Your task to perform on an android device: Empty the shopping cart on walmart. Add acer nitro to the cart on walmart, then select checkout. Image 0: 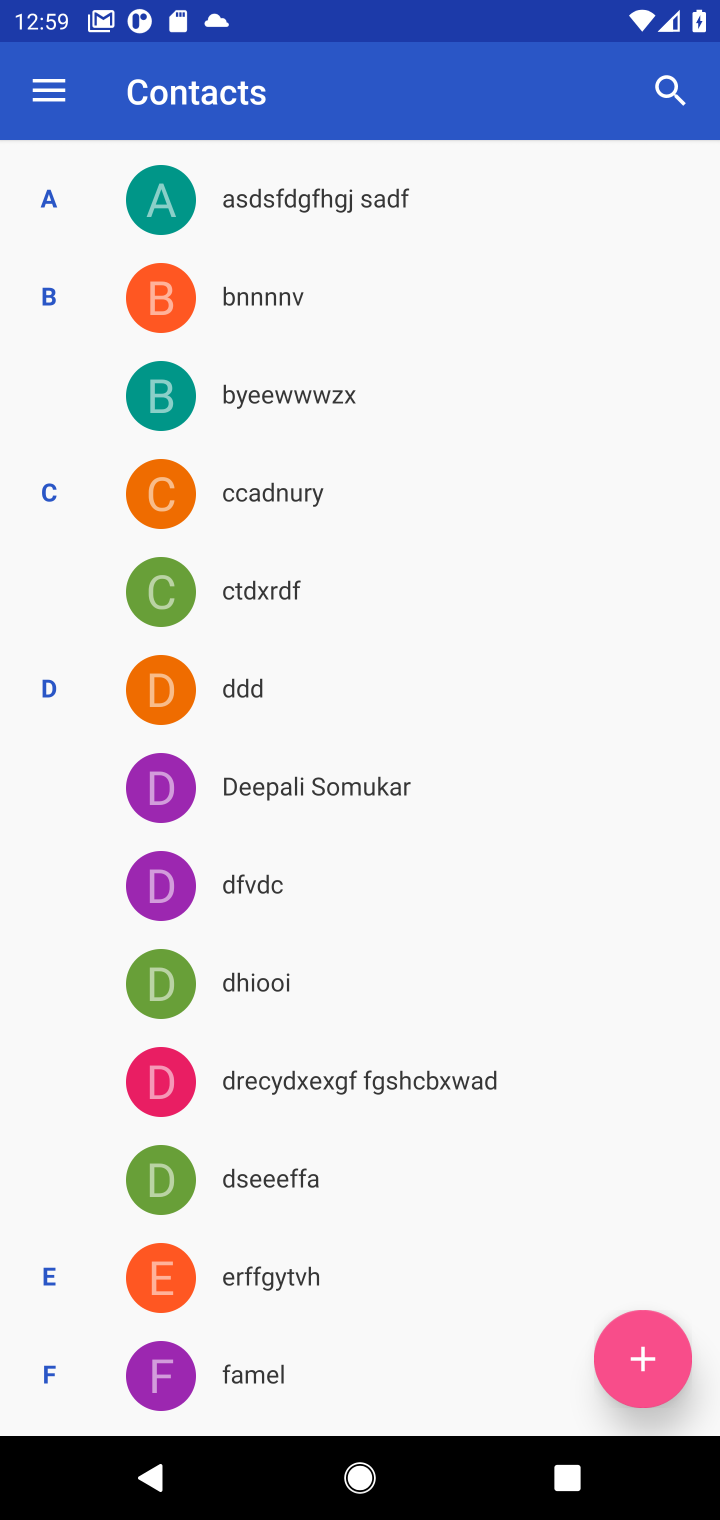
Step 0: press home button
Your task to perform on an android device: Empty the shopping cart on walmart. Add acer nitro to the cart on walmart, then select checkout. Image 1: 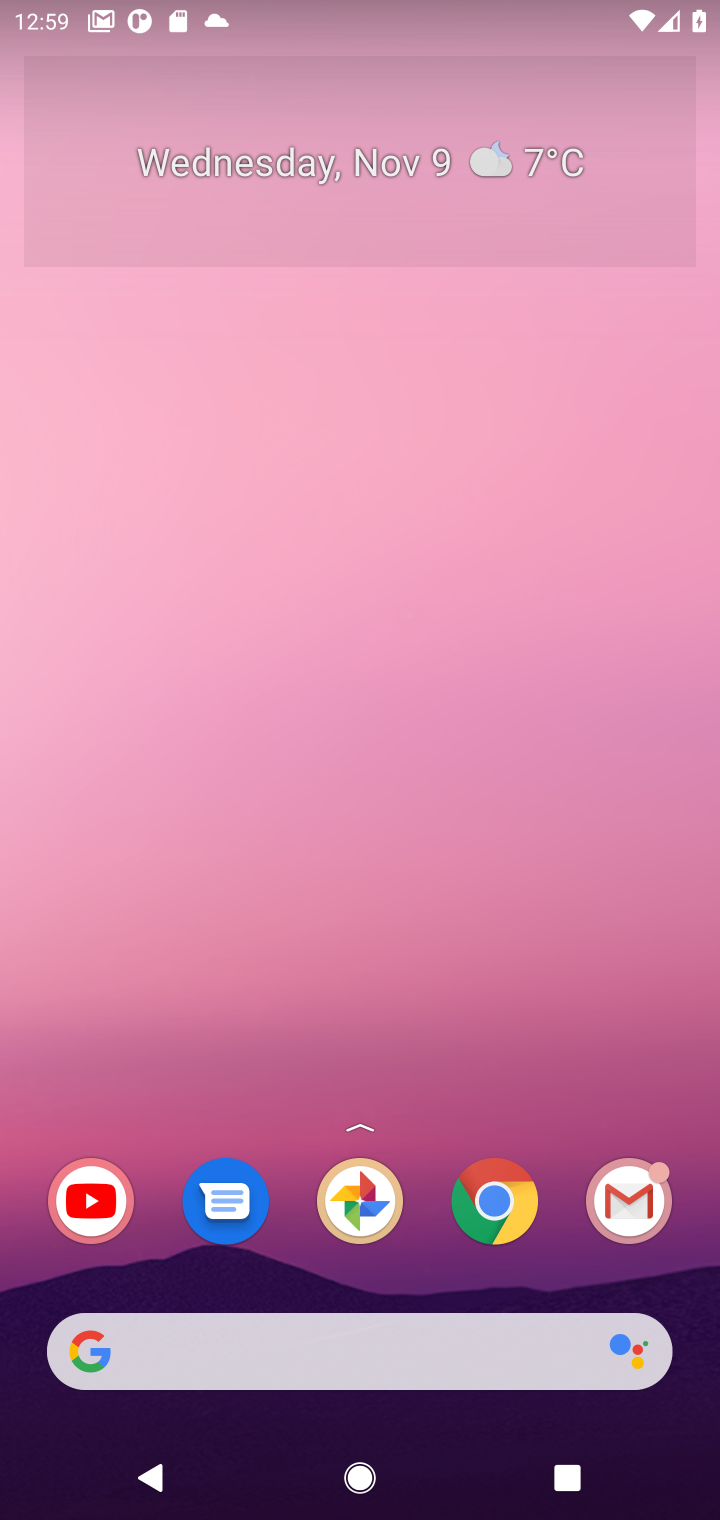
Step 1: click (353, 1365)
Your task to perform on an android device: Empty the shopping cart on walmart. Add acer nitro to the cart on walmart, then select checkout. Image 2: 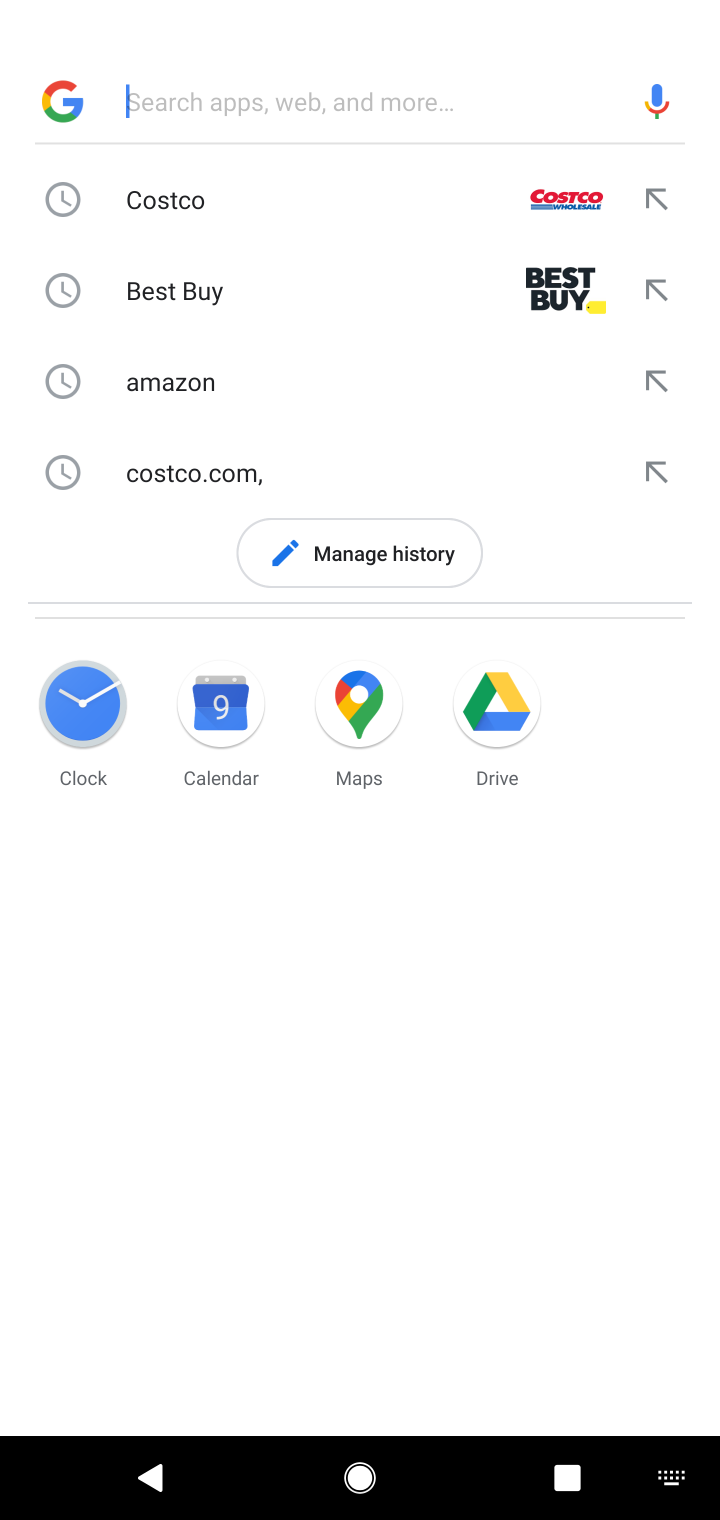
Step 2: type "walmart"
Your task to perform on an android device: Empty the shopping cart on walmart. Add acer nitro to the cart on walmart, then select checkout. Image 3: 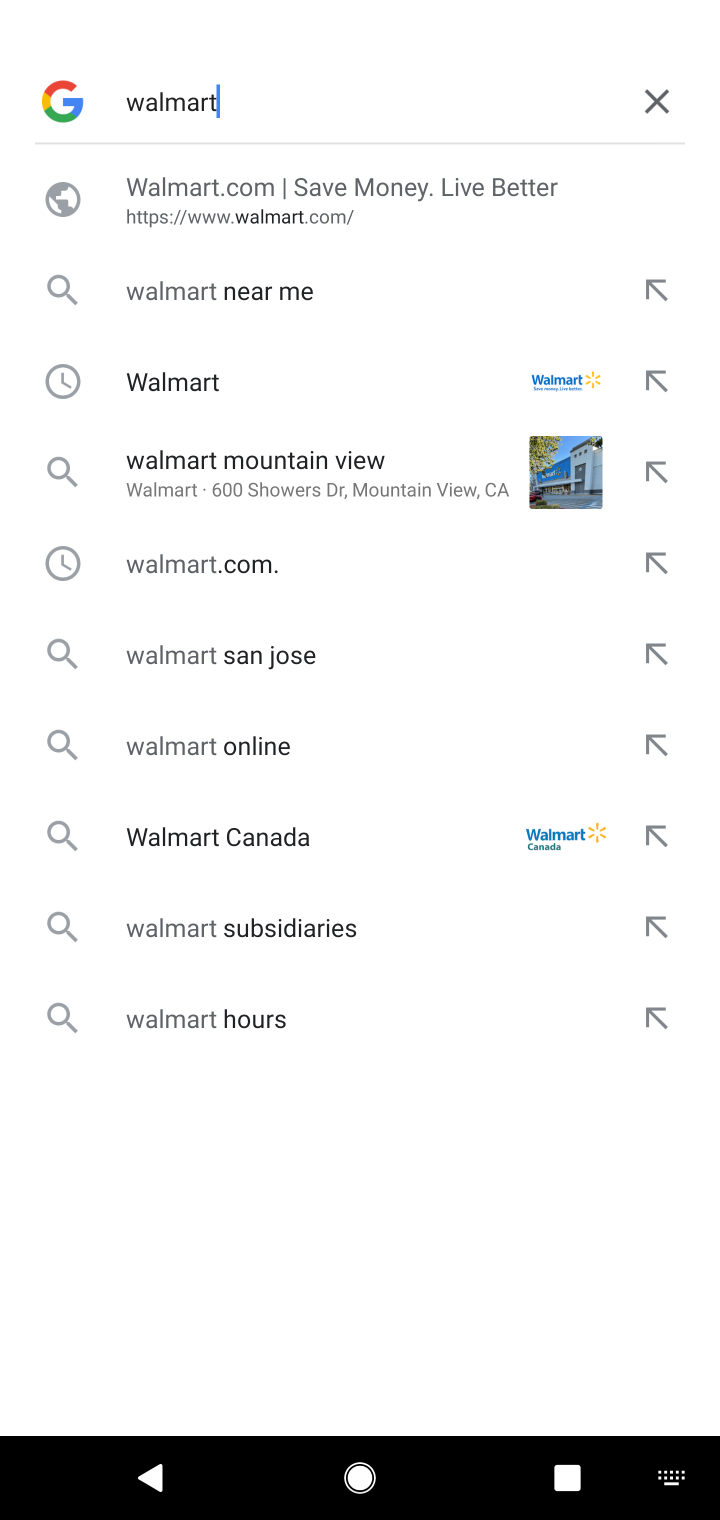
Step 3: click (228, 386)
Your task to perform on an android device: Empty the shopping cart on walmart. Add acer nitro to the cart on walmart, then select checkout. Image 4: 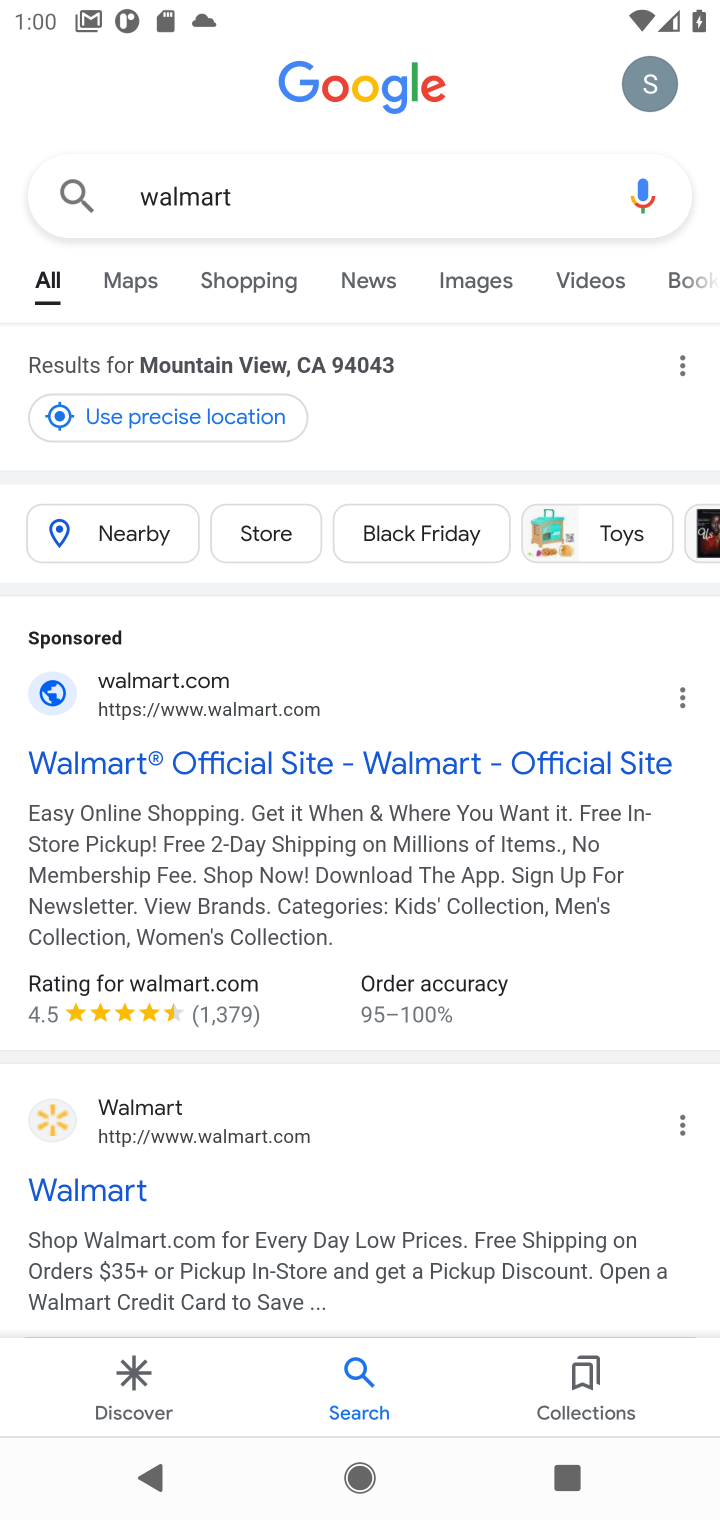
Step 4: click (160, 1139)
Your task to perform on an android device: Empty the shopping cart on walmart. Add acer nitro to the cart on walmart, then select checkout. Image 5: 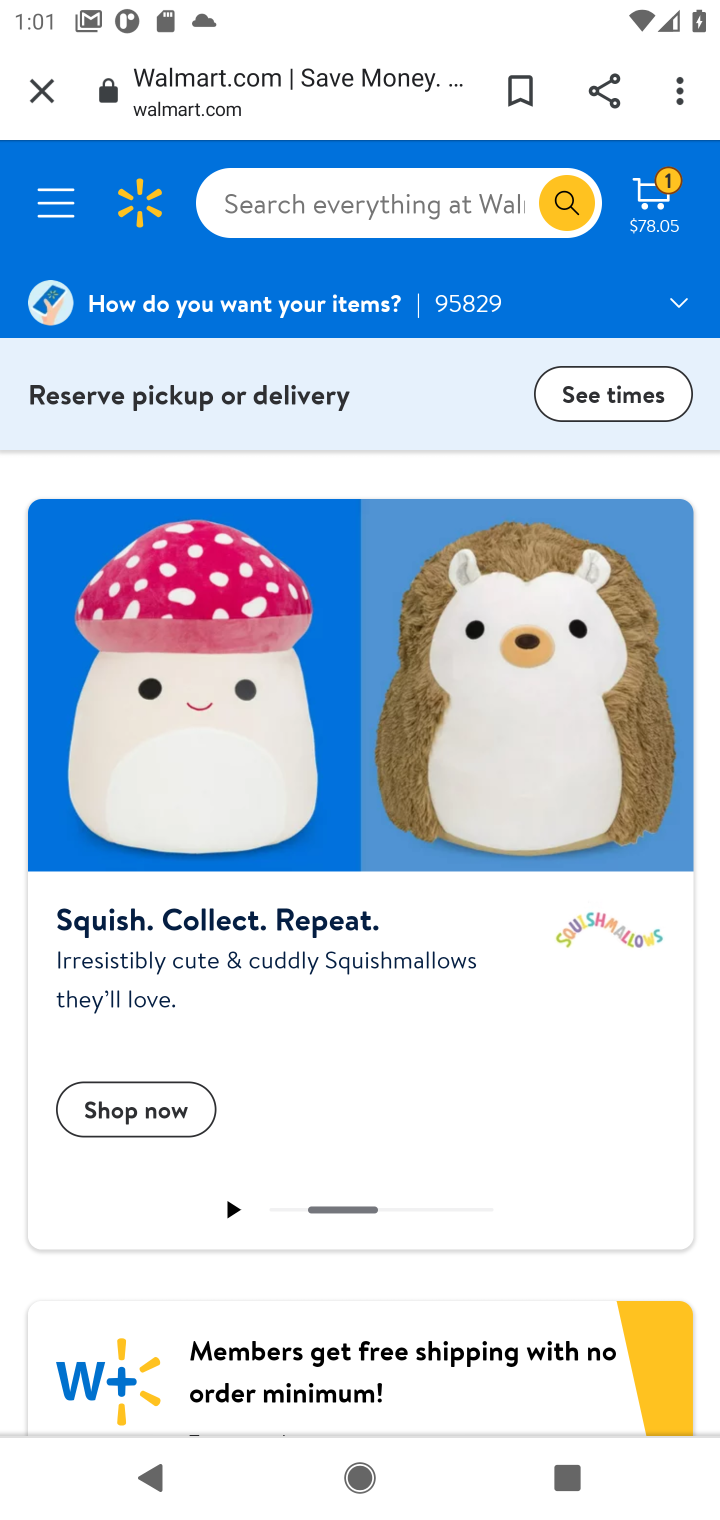
Step 5: click (405, 217)
Your task to perform on an android device: Empty the shopping cart on walmart. Add acer nitro to the cart on walmart, then select checkout. Image 6: 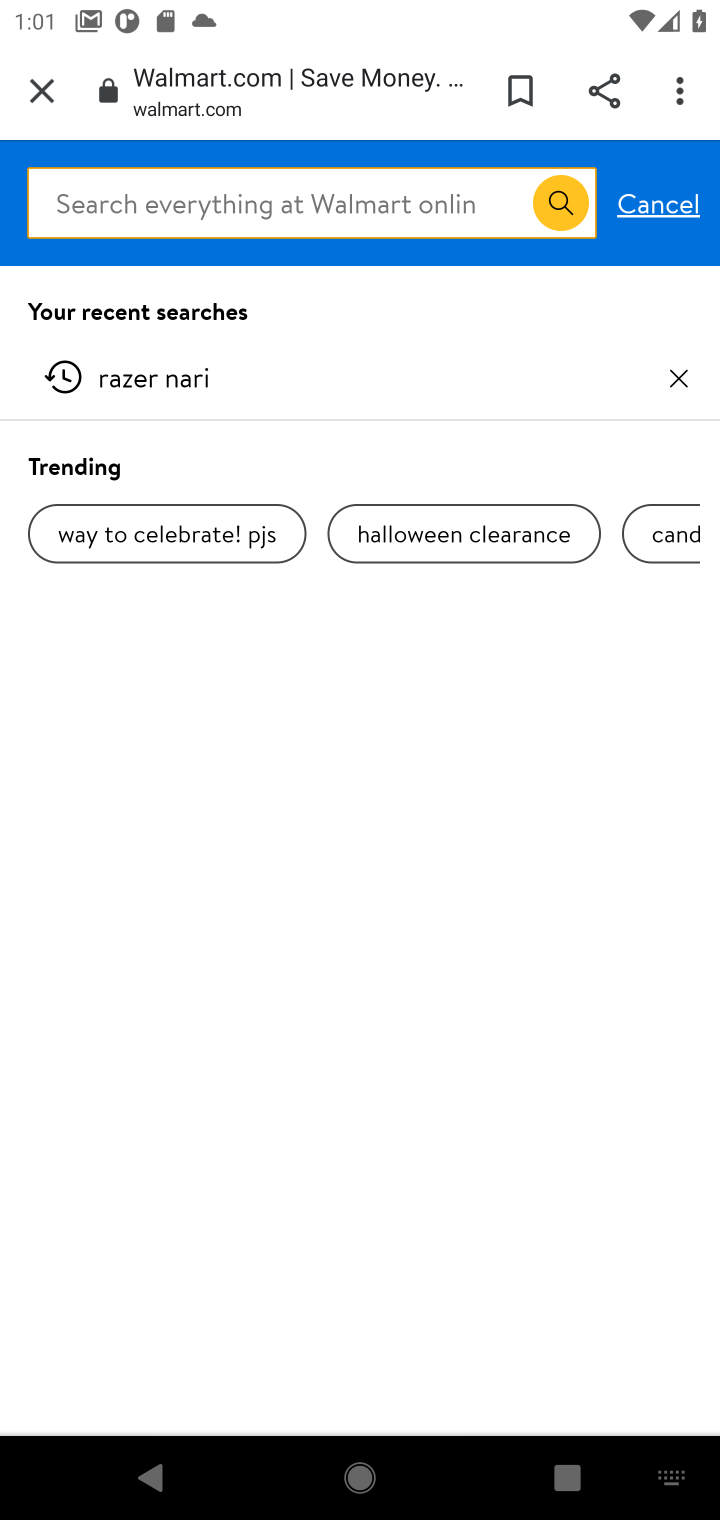
Step 6: type "acer nitro"
Your task to perform on an android device: Empty the shopping cart on walmart. Add acer nitro to the cart on walmart, then select checkout. Image 7: 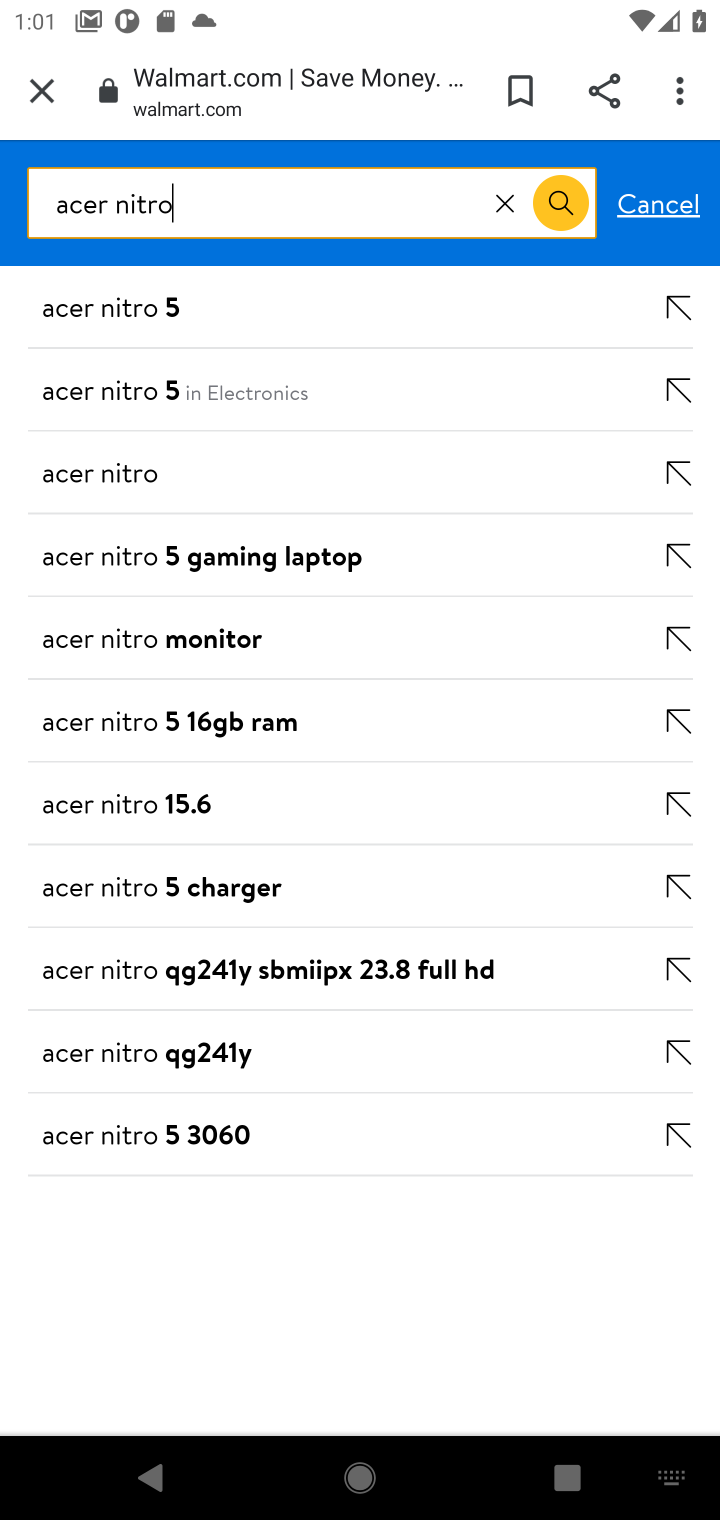
Step 7: click (112, 476)
Your task to perform on an android device: Empty the shopping cart on walmart. Add acer nitro to the cart on walmart, then select checkout. Image 8: 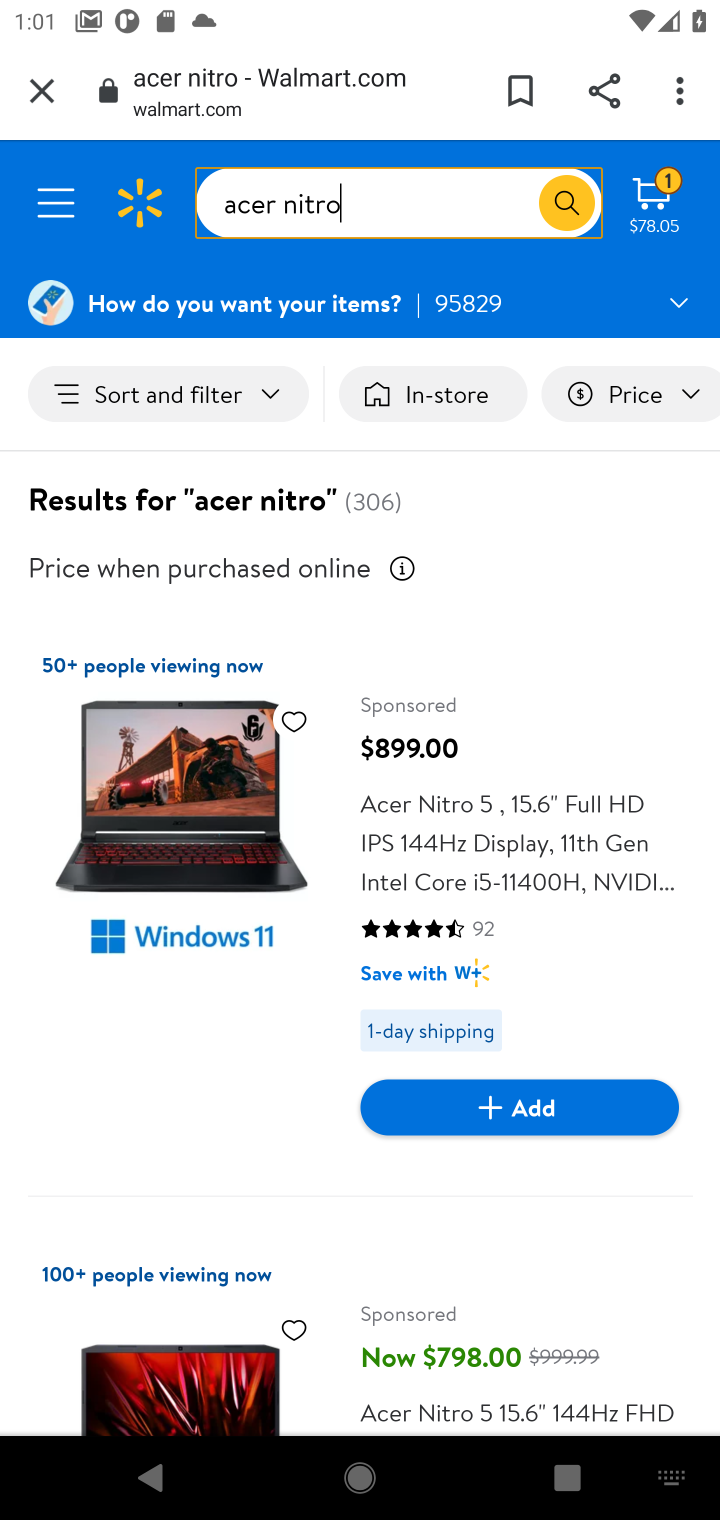
Step 8: click (489, 1107)
Your task to perform on an android device: Empty the shopping cart on walmart. Add acer nitro to the cart on walmart, then select checkout. Image 9: 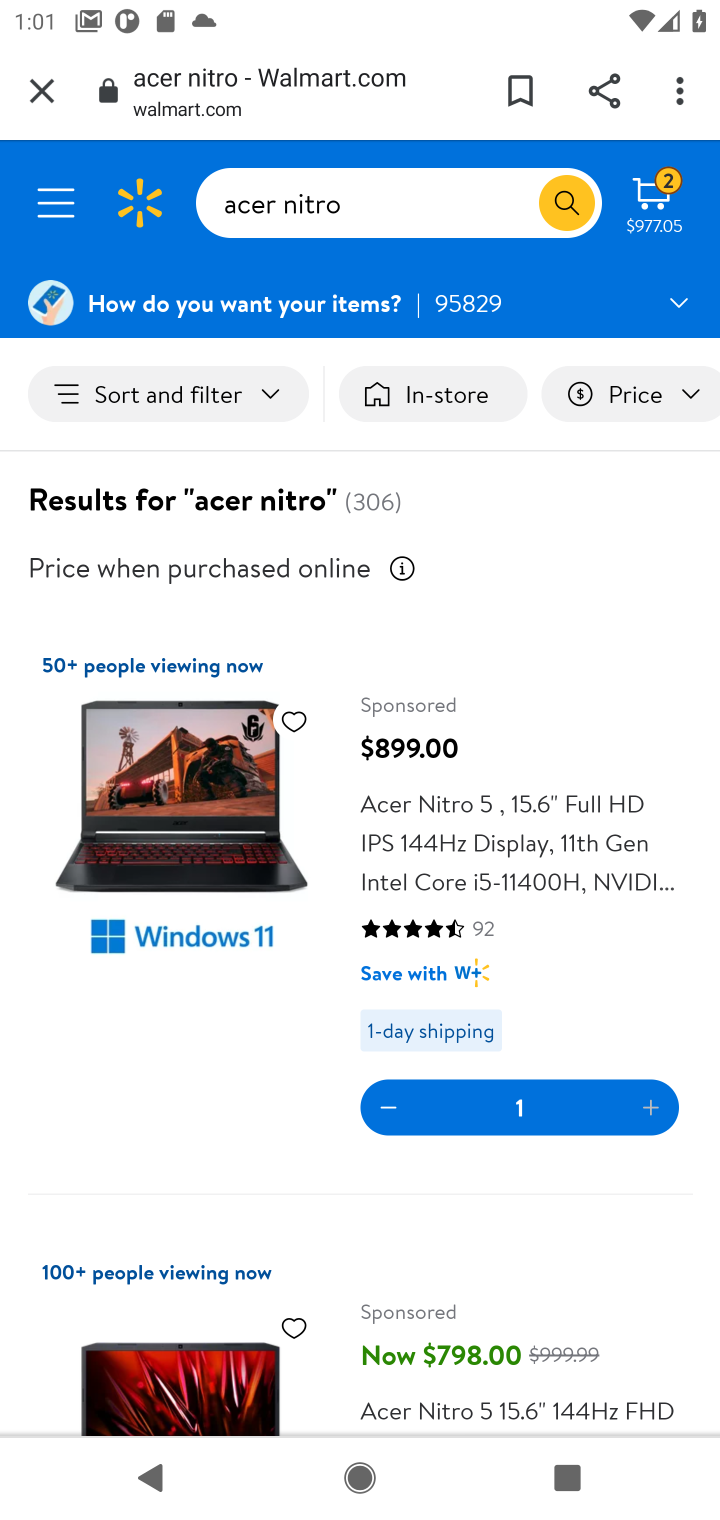
Step 9: click (657, 205)
Your task to perform on an android device: Empty the shopping cart on walmart. Add acer nitro to the cart on walmart, then select checkout. Image 10: 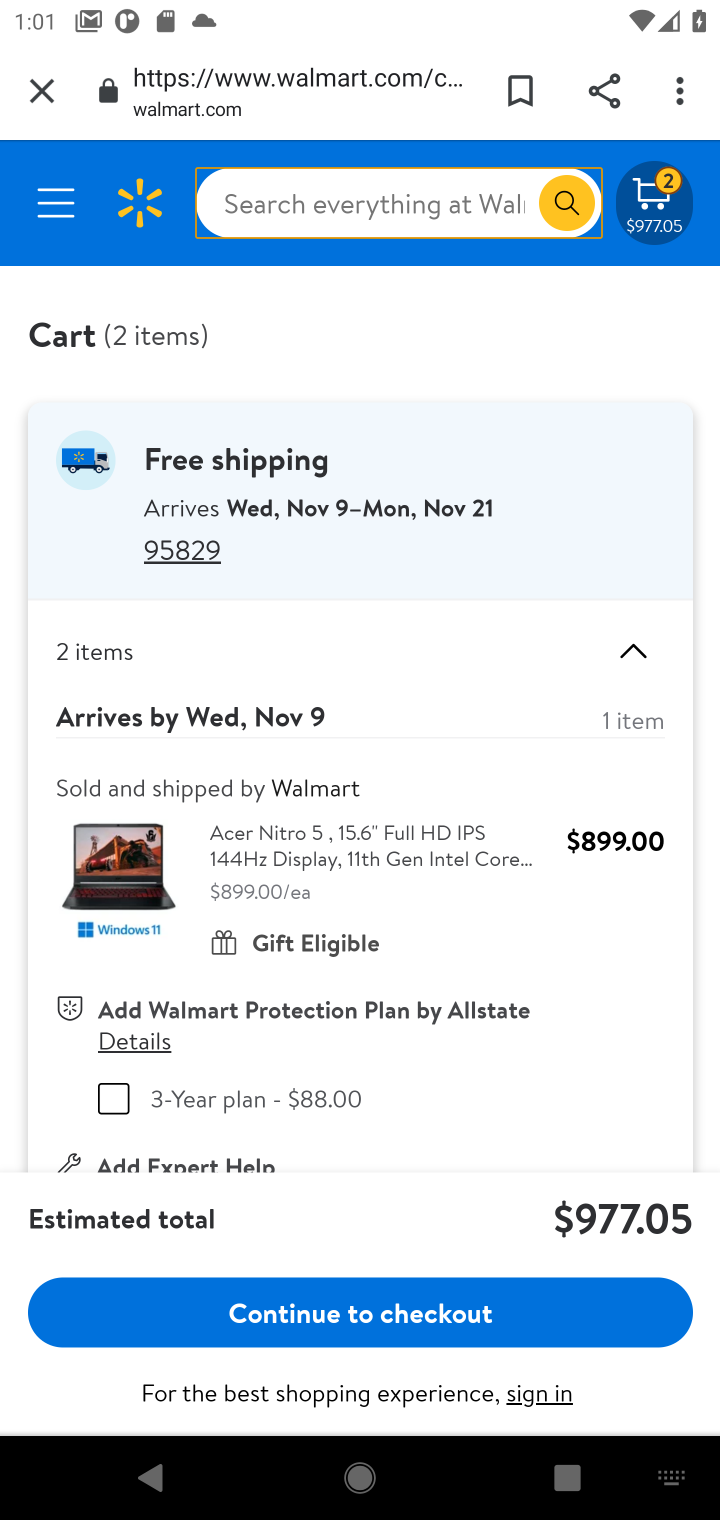
Step 10: click (382, 1306)
Your task to perform on an android device: Empty the shopping cart on walmart. Add acer nitro to the cart on walmart, then select checkout. Image 11: 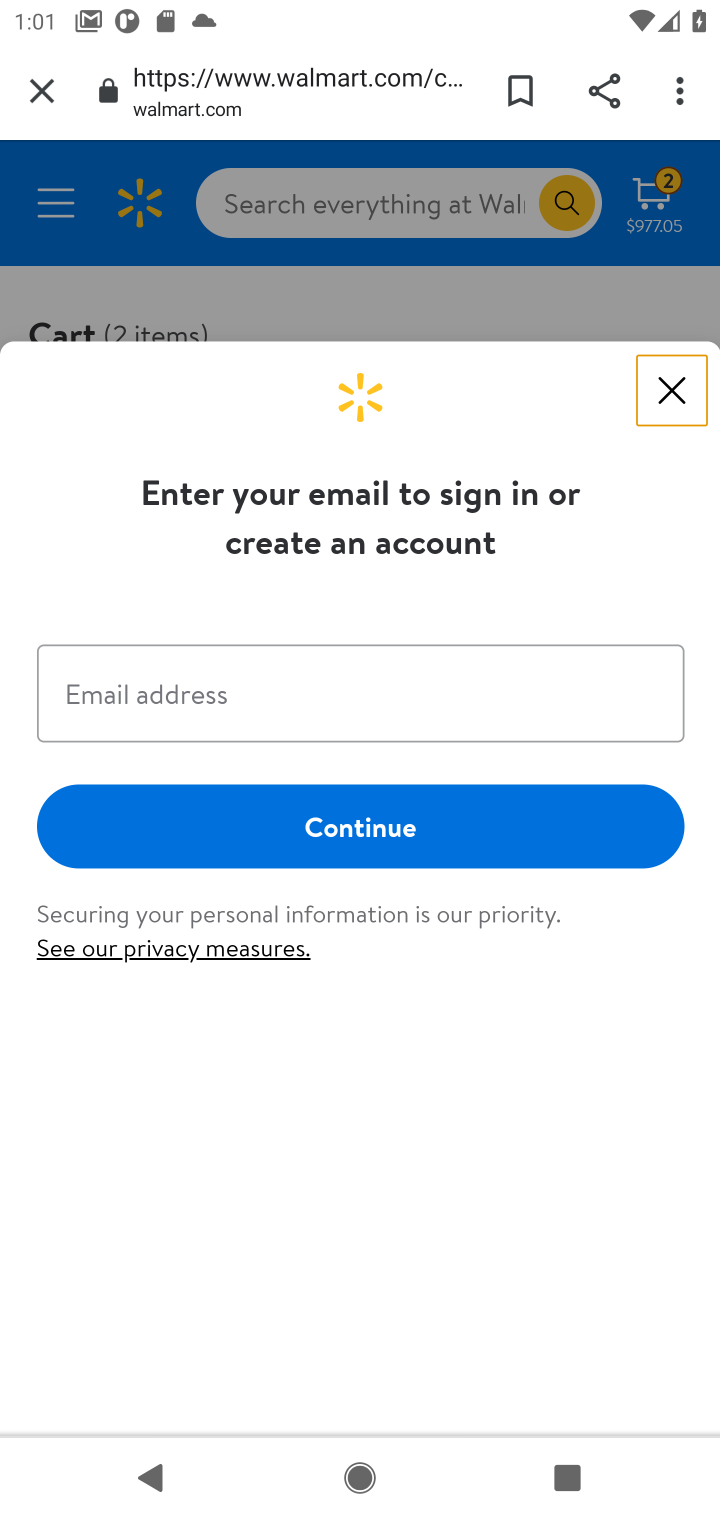
Step 11: task complete